Your task to perform on an android device: Open wifi settings Image 0: 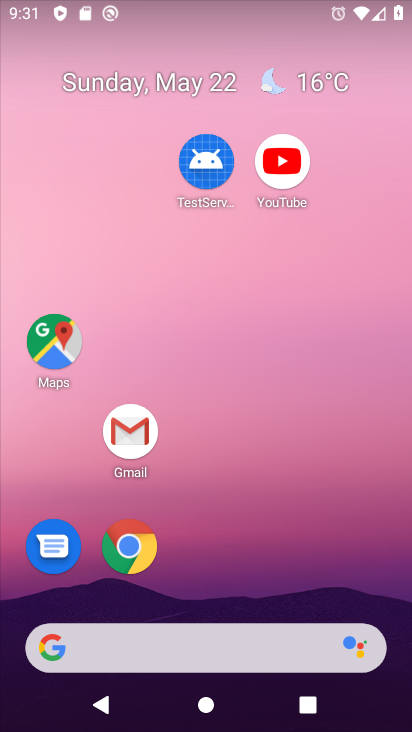
Step 0: drag from (276, 562) to (281, 142)
Your task to perform on an android device: Open wifi settings Image 1: 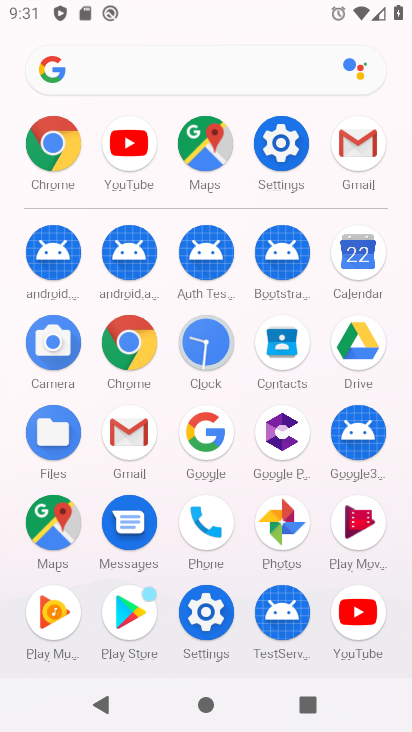
Step 1: click (280, 143)
Your task to perform on an android device: Open wifi settings Image 2: 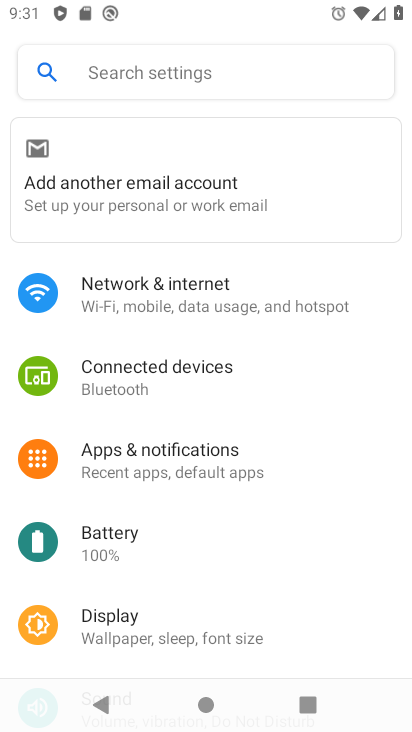
Step 2: click (157, 295)
Your task to perform on an android device: Open wifi settings Image 3: 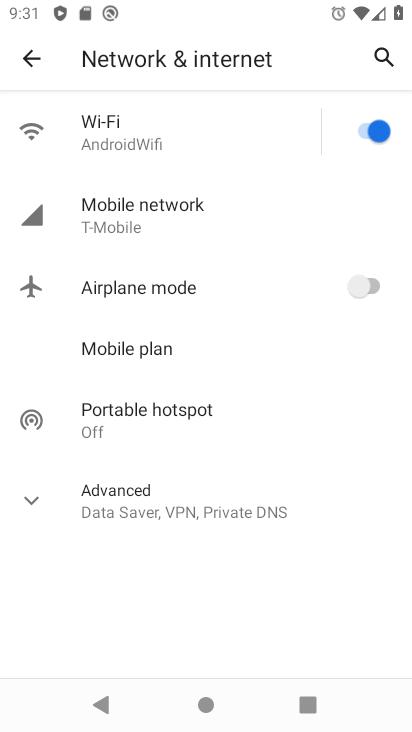
Step 3: task complete